Your task to perform on an android device: Check the new Jordans on Nike. Image 0: 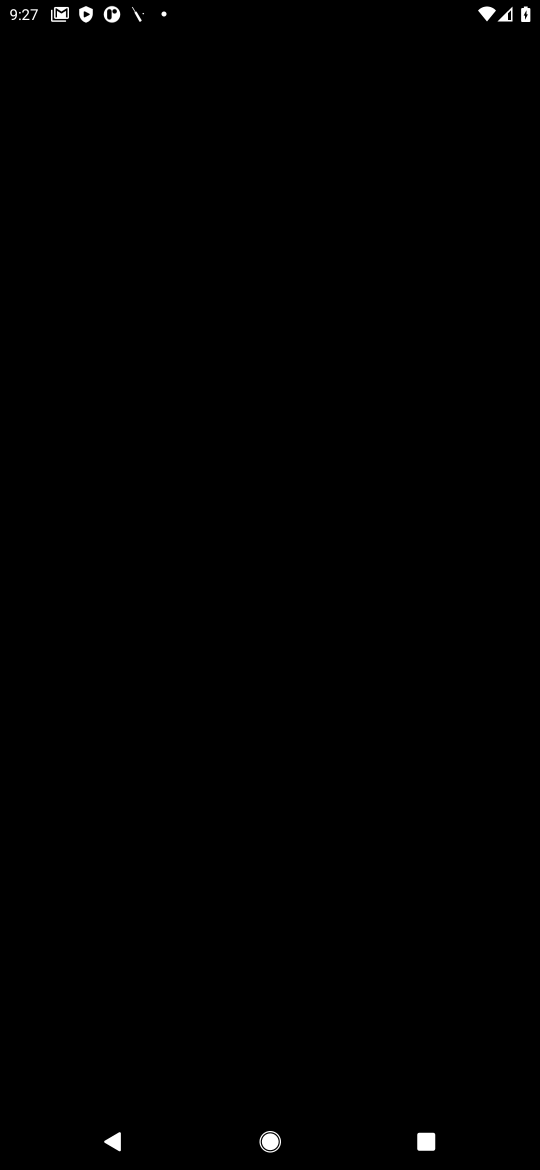
Step 0: press home button
Your task to perform on an android device: Check the new Jordans on Nike. Image 1: 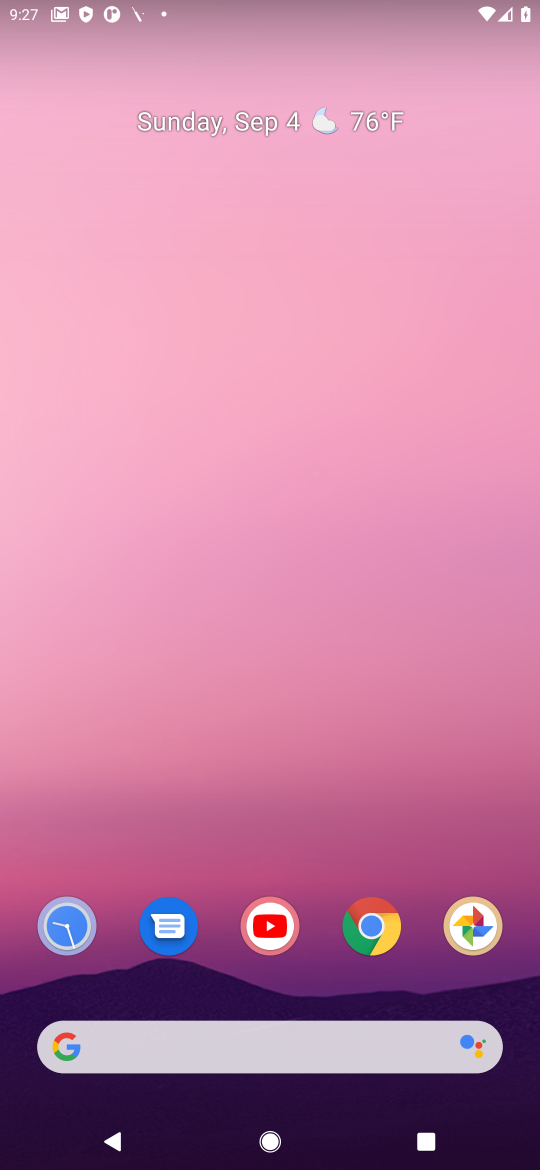
Step 1: click (175, 1039)
Your task to perform on an android device: Check the new Jordans on Nike. Image 2: 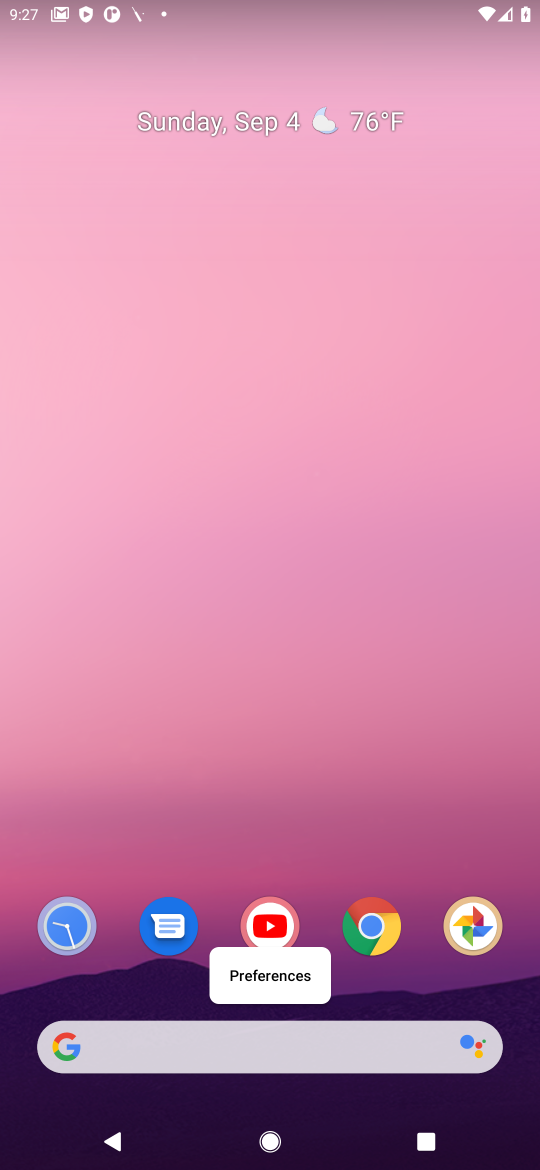
Step 2: click (175, 1039)
Your task to perform on an android device: Check the new Jordans on Nike. Image 3: 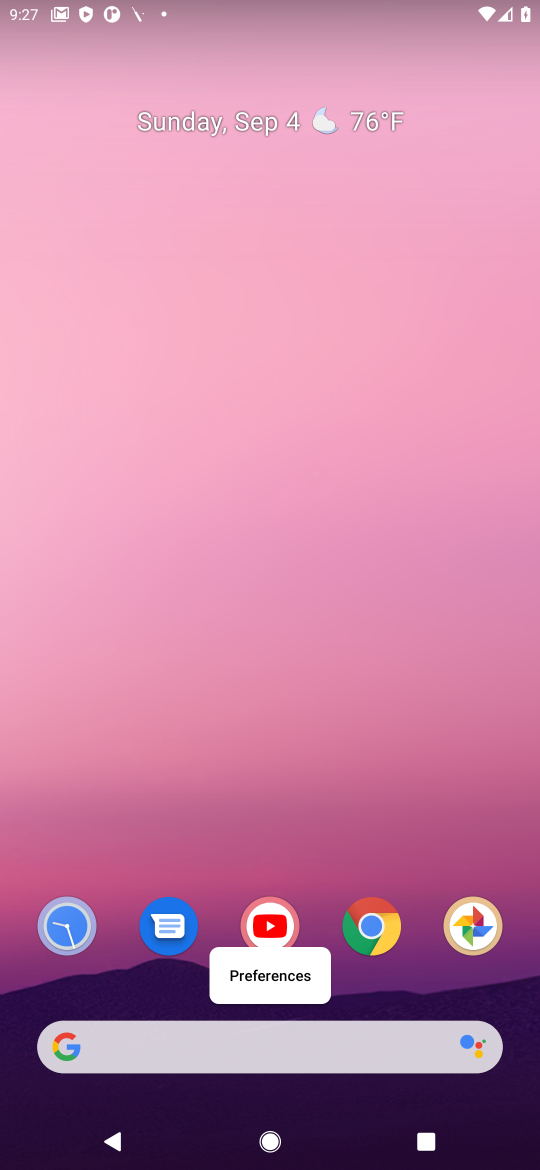
Step 3: click (88, 1033)
Your task to perform on an android device: Check the new Jordans on Nike. Image 4: 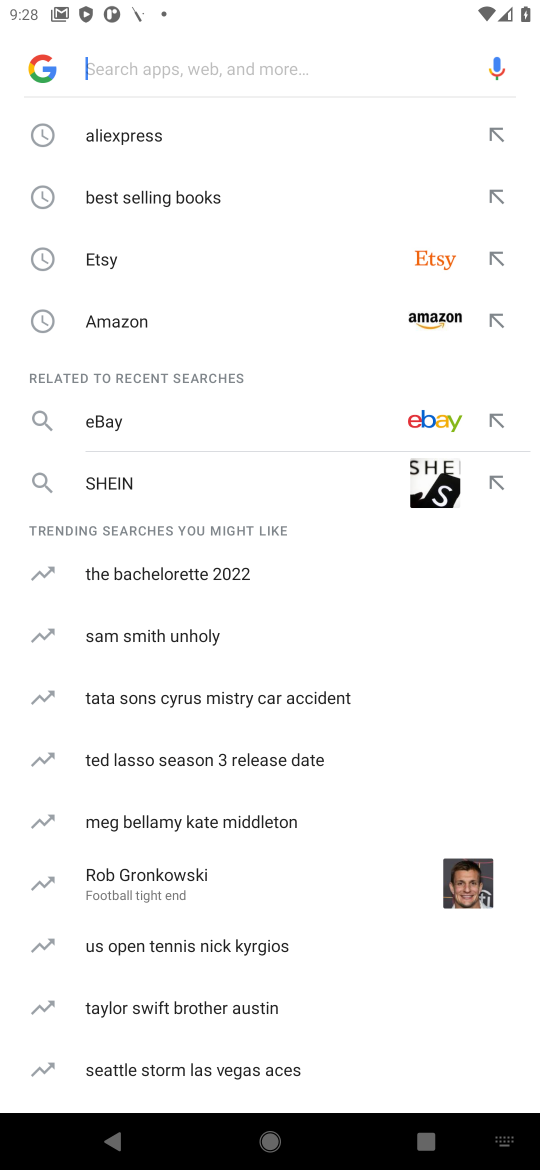
Step 4: type "nike"
Your task to perform on an android device: Check the new Jordans on Nike. Image 5: 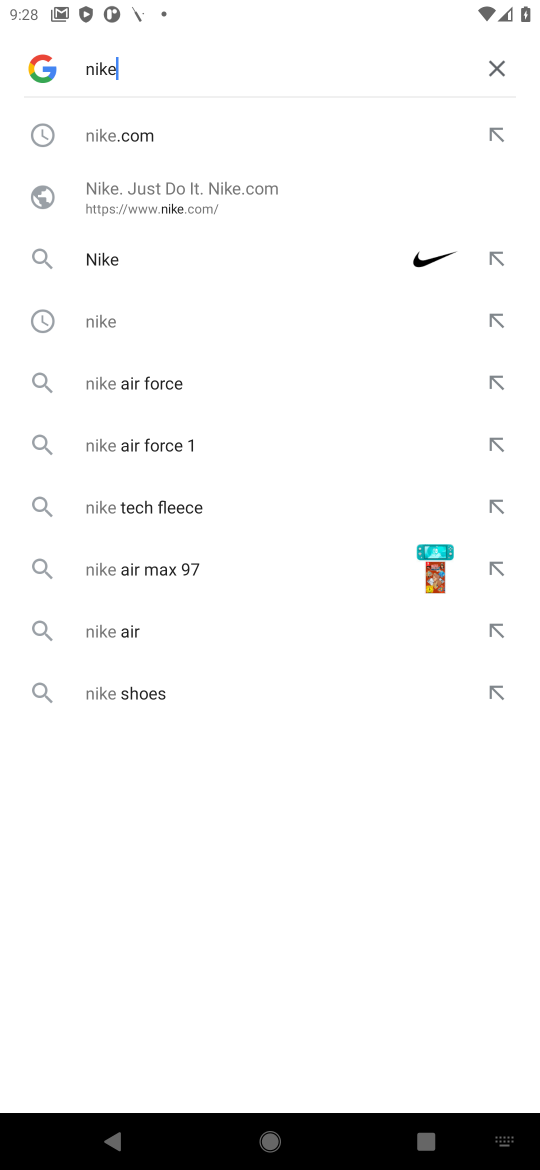
Step 5: click (105, 137)
Your task to perform on an android device: Check the new Jordans on Nike. Image 6: 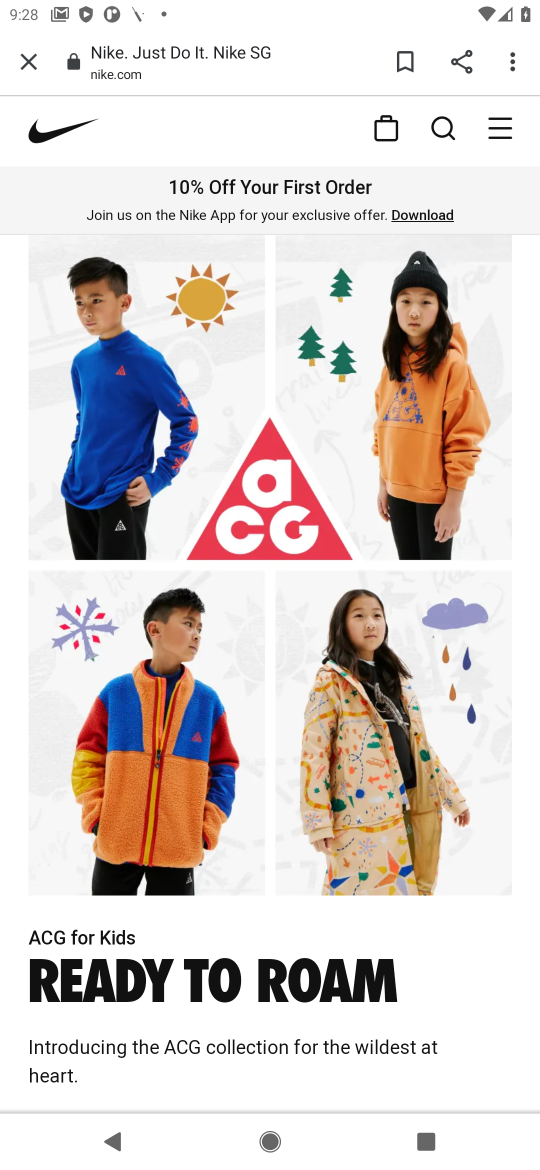
Step 6: click (445, 127)
Your task to perform on an android device: Check the new Jordans on Nike. Image 7: 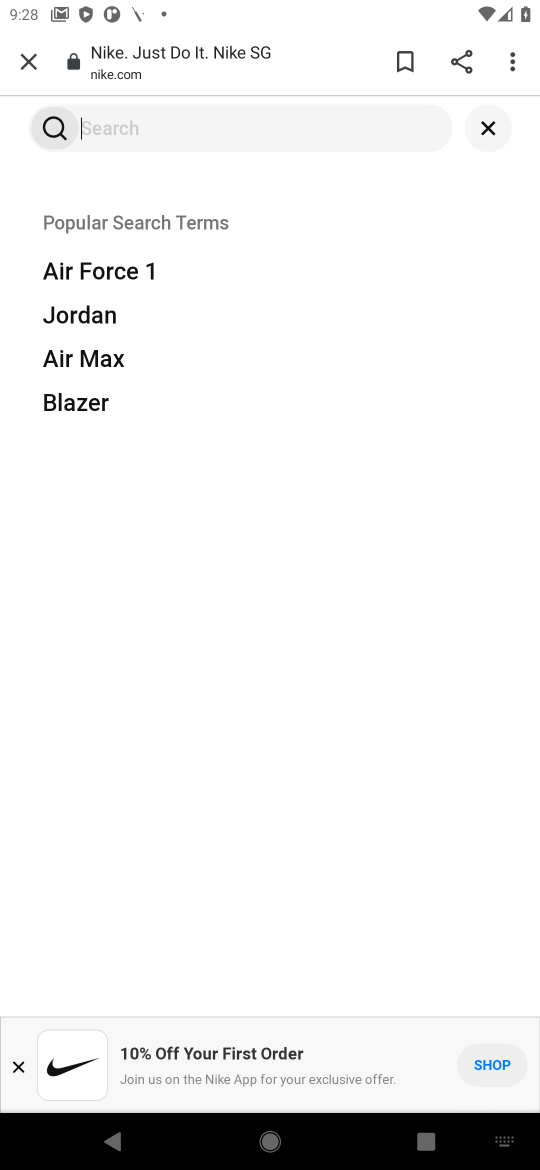
Step 7: click (193, 136)
Your task to perform on an android device: Check the new Jordans on Nike. Image 8: 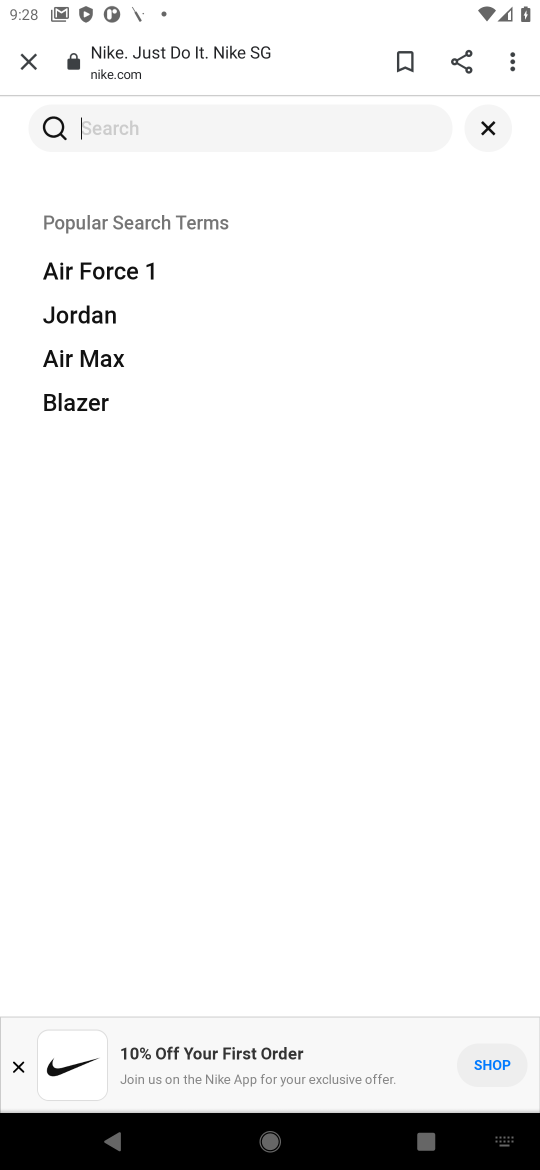
Step 8: type "new jordans"
Your task to perform on an android device: Check the new Jordans on Nike. Image 9: 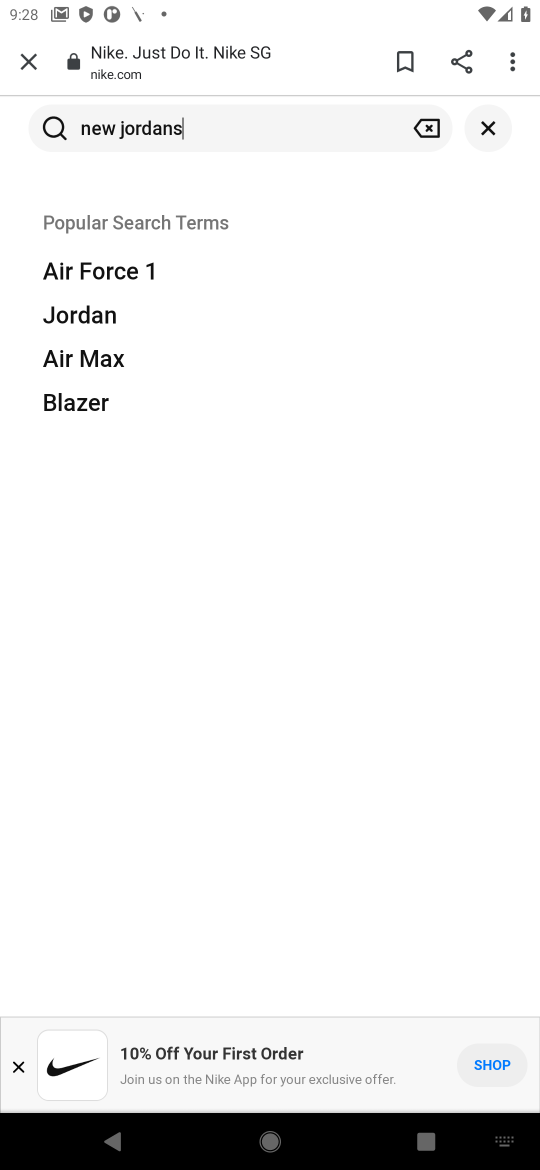
Step 9: click (57, 121)
Your task to perform on an android device: Check the new Jordans on Nike. Image 10: 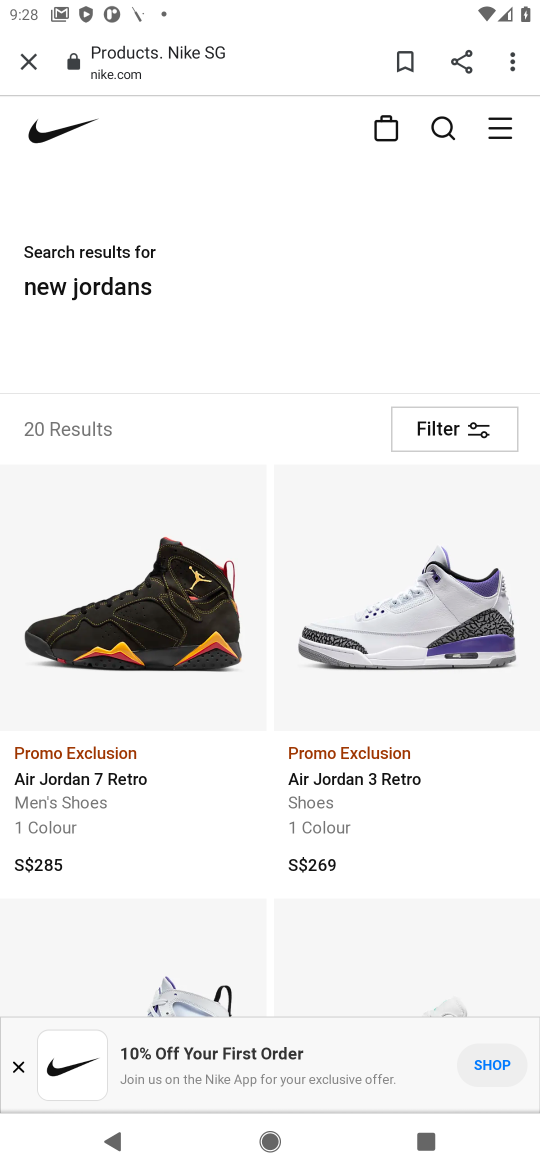
Step 10: task complete